Your task to perform on an android device: What's the weather going to be tomorrow? Image 0: 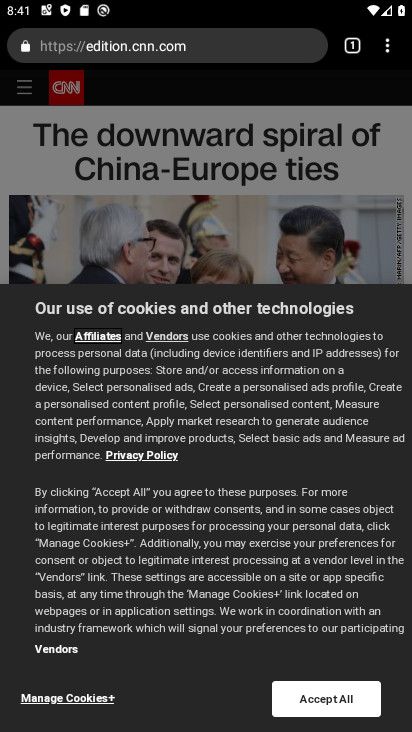
Step 0: press home button
Your task to perform on an android device: What's the weather going to be tomorrow? Image 1: 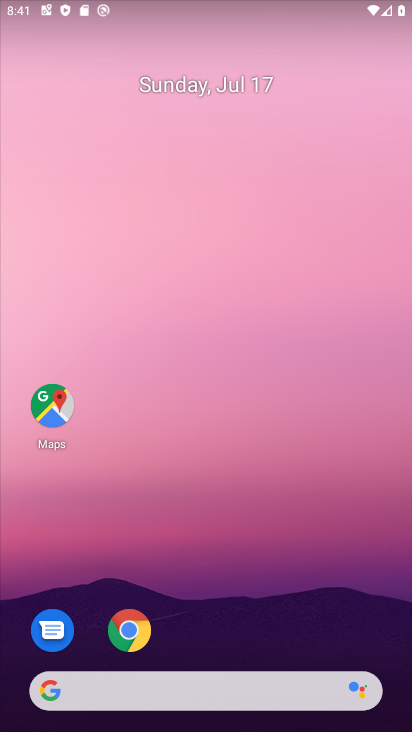
Step 1: click (149, 701)
Your task to perform on an android device: What's the weather going to be tomorrow? Image 2: 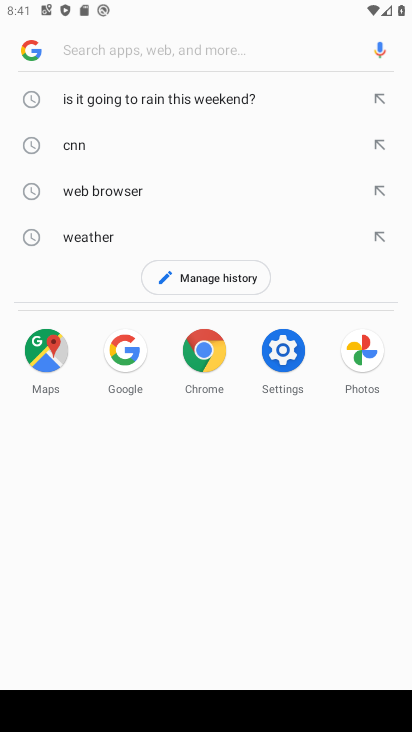
Step 2: type "What's the weather going to be tomorrow?"
Your task to perform on an android device: What's the weather going to be tomorrow? Image 3: 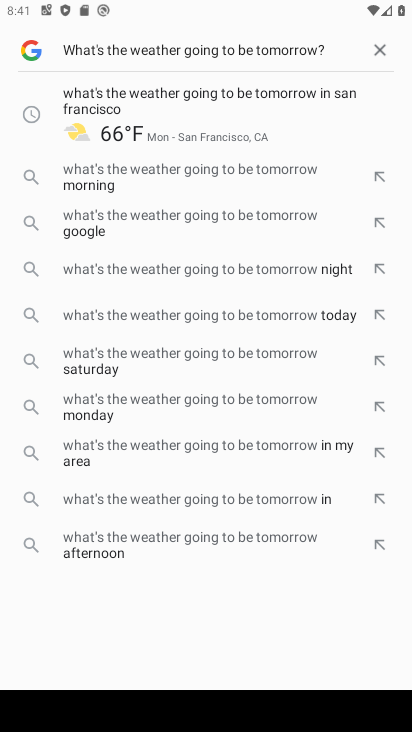
Step 3: press enter
Your task to perform on an android device: What's the weather going to be tomorrow? Image 4: 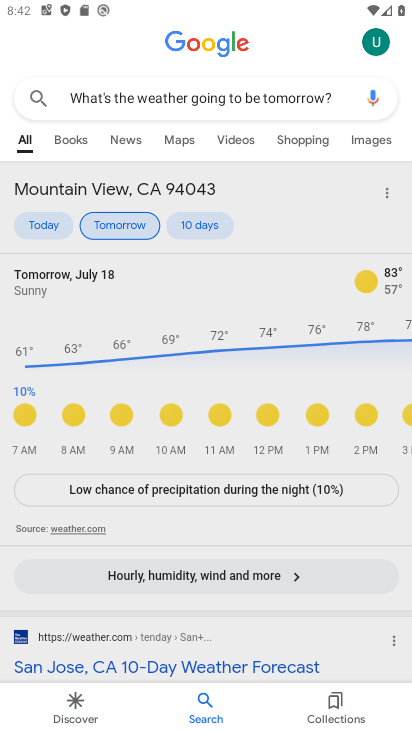
Step 4: task complete